Your task to perform on an android device: Open calendar and show me the fourth week of next month Image 0: 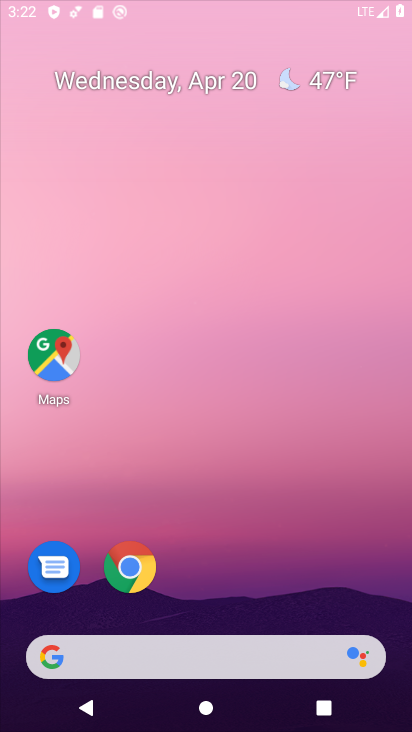
Step 0: click (220, 76)
Your task to perform on an android device: Open calendar and show me the fourth week of next month Image 1: 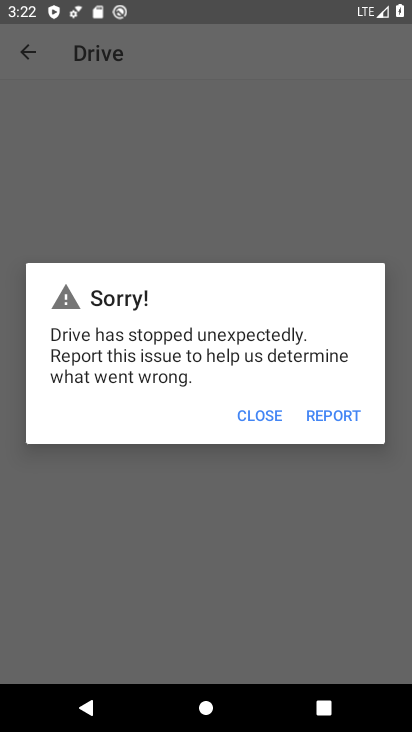
Step 1: press back button
Your task to perform on an android device: Open calendar and show me the fourth week of next month Image 2: 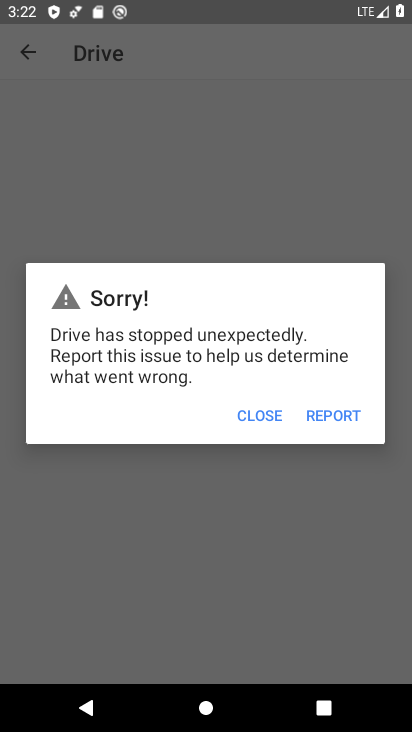
Step 2: press home button
Your task to perform on an android device: Open calendar and show me the fourth week of next month Image 3: 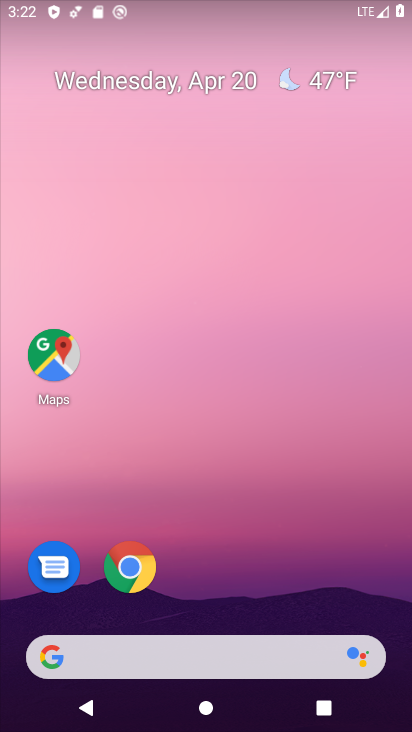
Step 3: drag from (261, 551) to (242, 109)
Your task to perform on an android device: Open calendar and show me the fourth week of next month Image 4: 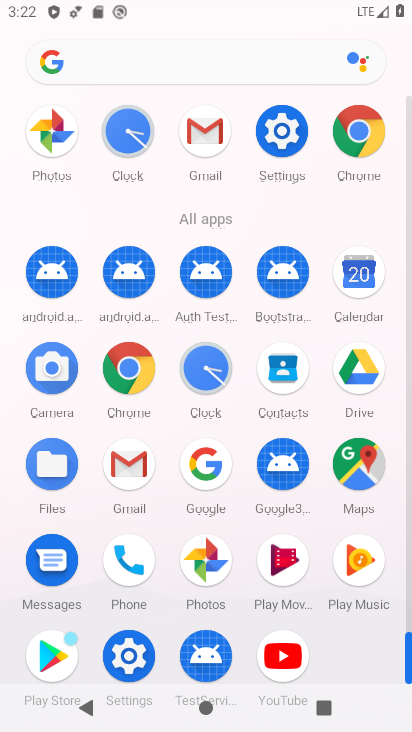
Step 4: click (356, 273)
Your task to perform on an android device: Open calendar and show me the fourth week of next month Image 5: 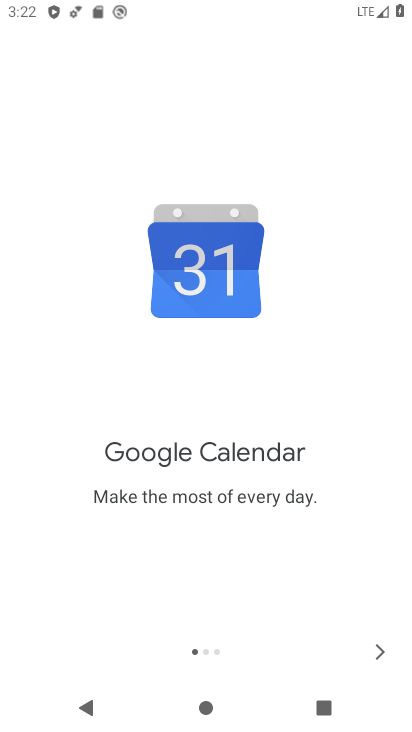
Step 5: click (368, 653)
Your task to perform on an android device: Open calendar and show me the fourth week of next month Image 6: 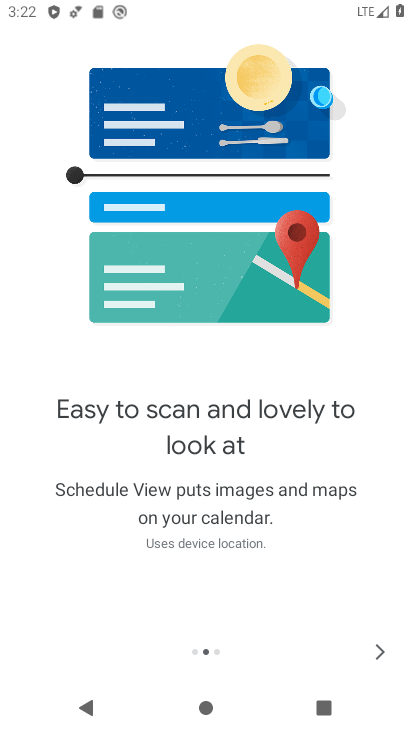
Step 6: click (368, 653)
Your task to perform on an android device: Open calendar and show me the fourth week of next month Image 7: 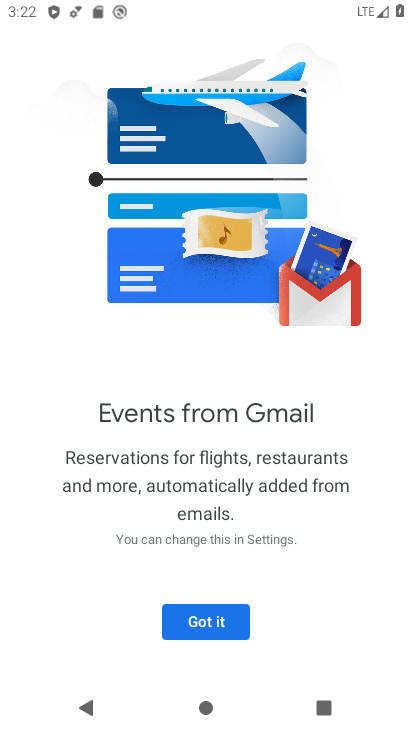
Step 7: click (211, 628)
Your task to perform on an android device: Open calendar and show me the fourth week of next month Image 8: 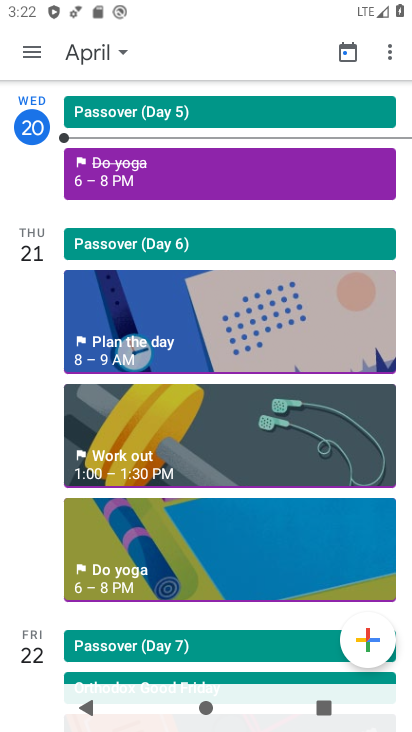
Step 8: click (105, 41)
Your task to perform on an android device: Open calendar and show me the fourth week of next month Image 9: 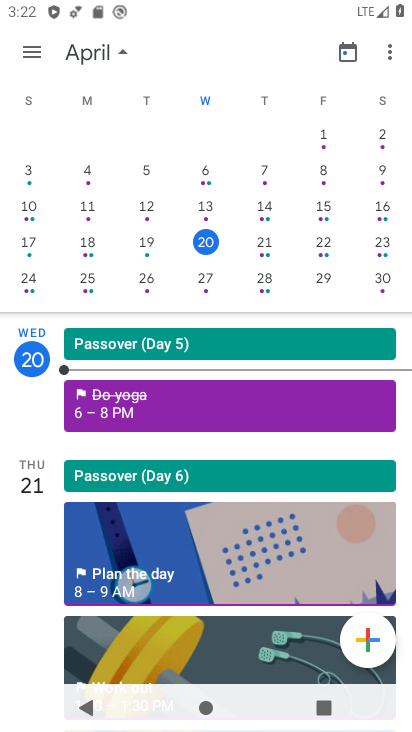
Step 9: drag from (358, 183) to (2, 218)
Your task to perform on an android device: Open calendar and show me the fourth week of next month Image 10: 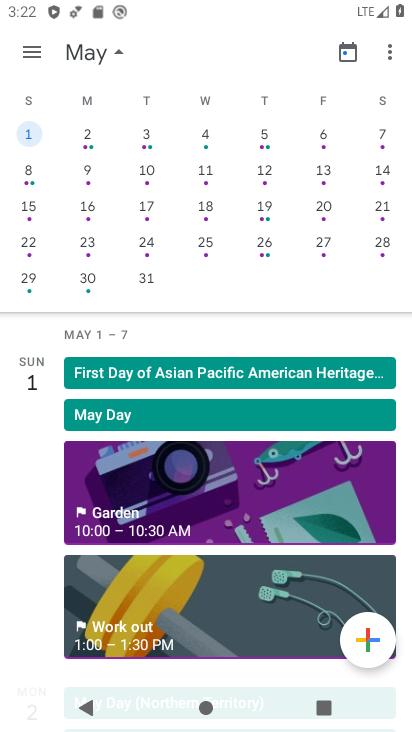
Step 10: click (28, 250)
Your task to perform on an android device: Open calendar and show me the fourth week of next month Image 11: 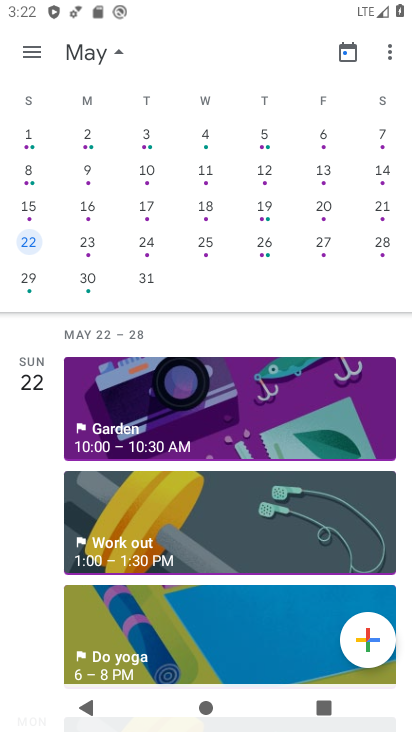
Step 11: click (31, 46)
Your task to perform on an android device: Open calendar and show me the fourth week of next month Image 12: 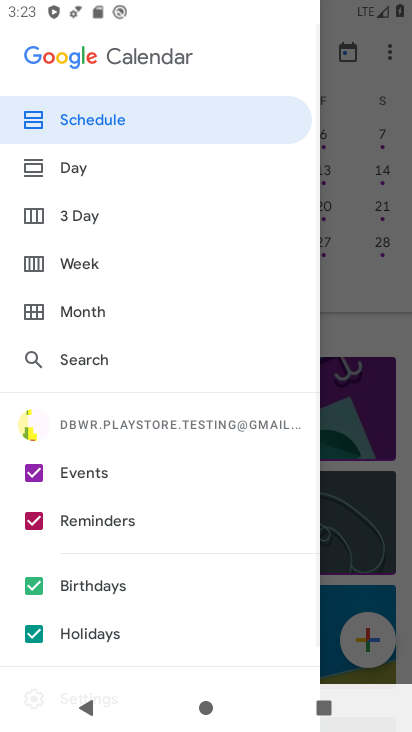
Step 12: click (87, 274)
Your task to perform on an android device: Open calendar and show me the fourth week of next month Image 13: 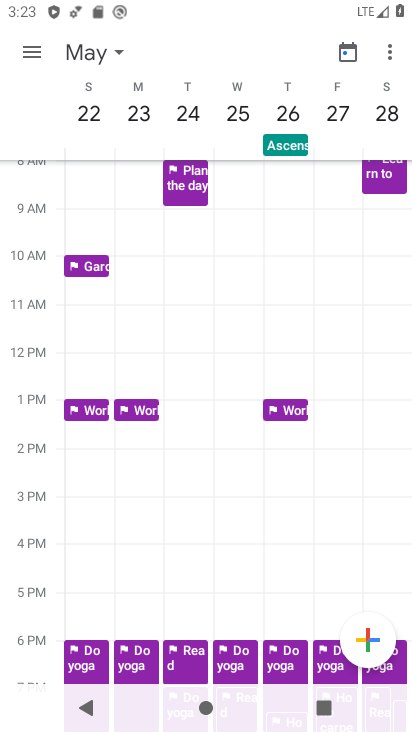
Step 13: task complete